Your task to perform on an android device: Open Yahoo.com Image 0: 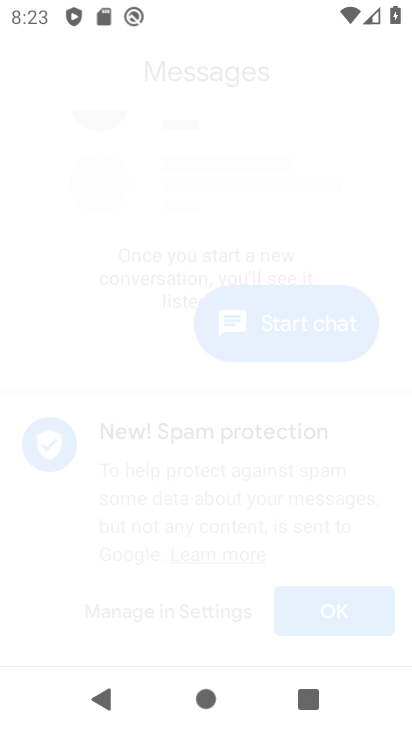
Step 0: drag from (371, 523) to (361, 386)
Your task to perform on an android device: Open Yahoo.com Image 1: 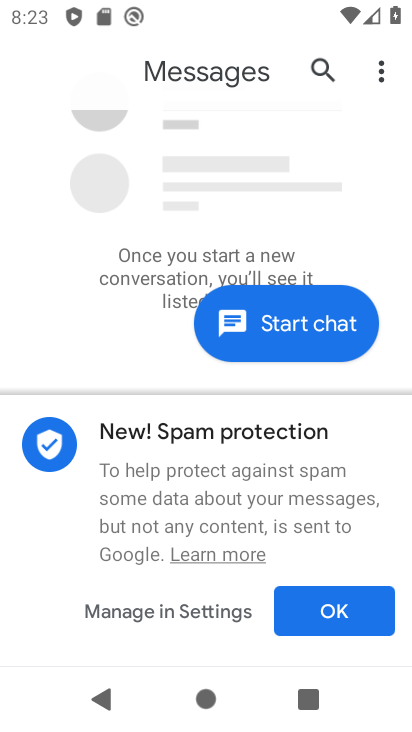
Step 1: press home button
Your task to perform on an android device: Open Yahoo.com Image 2: 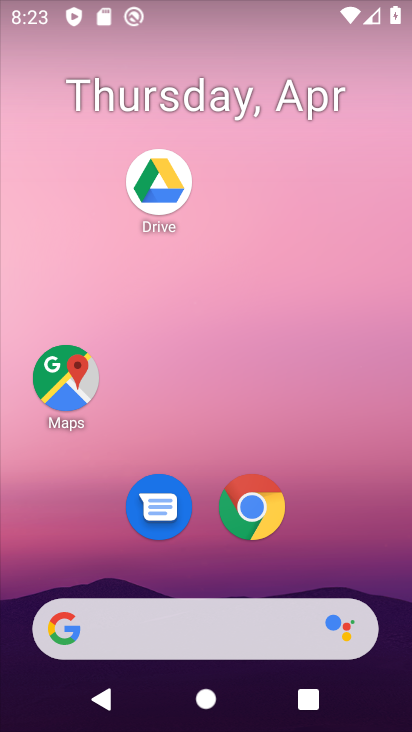
Step 2: drag from (380, 554) to (349, 118)
Your task to perform on an android device: Open Yahoo.com Image 3: 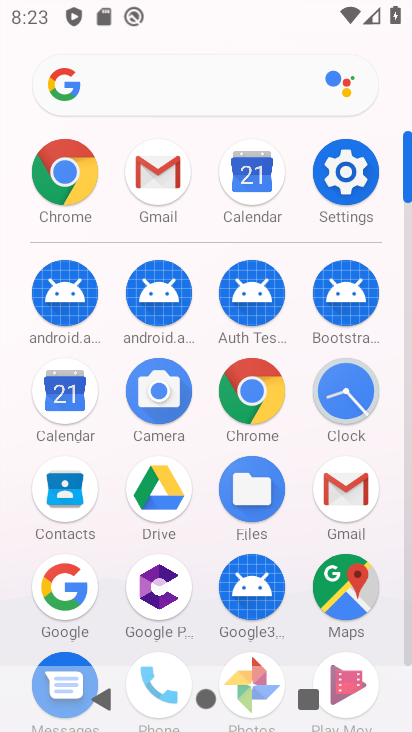
Step 3: click (269, 392)
Your task to perform on an android device: Open Yahoo.com Image 4: 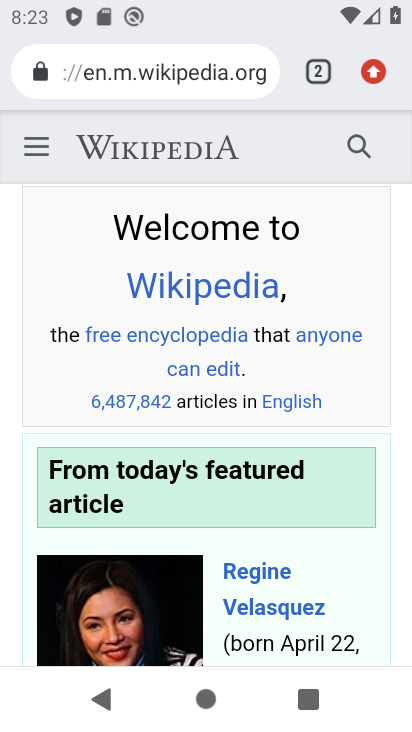
Step 4: press back button
Your task to perform on an android device: Open Yahoo.com Image 5: 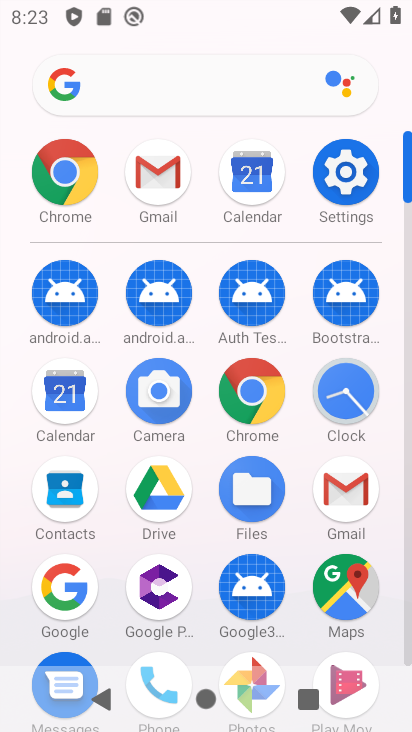
Step 5: click (244, 403)
Your task to perform on an android device: Open Yahoo.com Image 6: 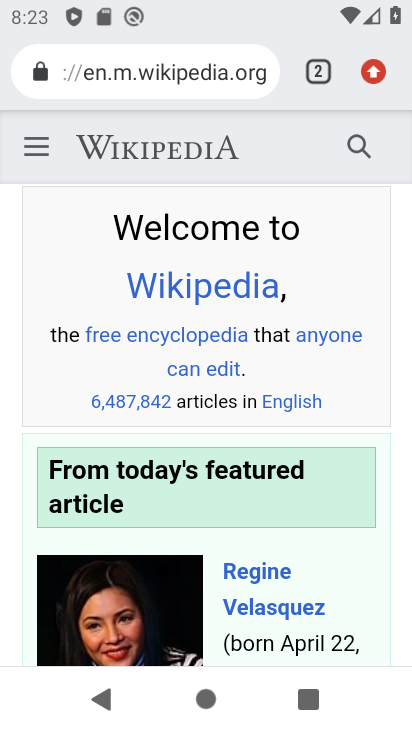
Step 6: click (233, 69)
Your task to perform on an android device: Open Yahoo.com Image 7: 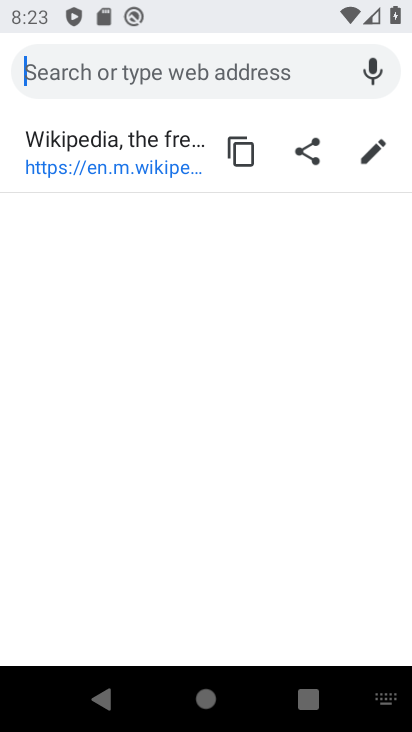
Step 7: type "yahoo.com"
Your task to perform on an android device: Open Yahoo.com Image 8: 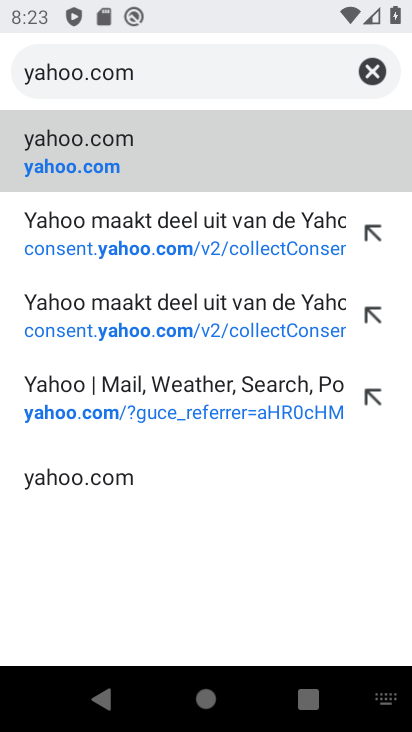
Step 8: click (164, 154)
Your task to perform on an android device: Open Yahoo.com Image 9: 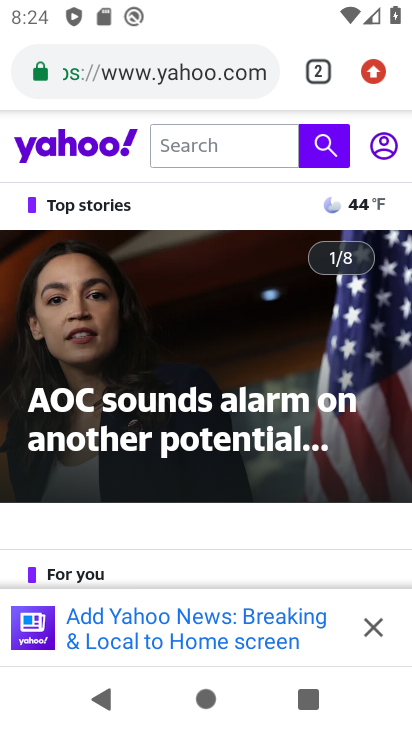
Step 9: task complete